Your task to perform on an android device: turn on showing notifications on the lock screen Image 0: 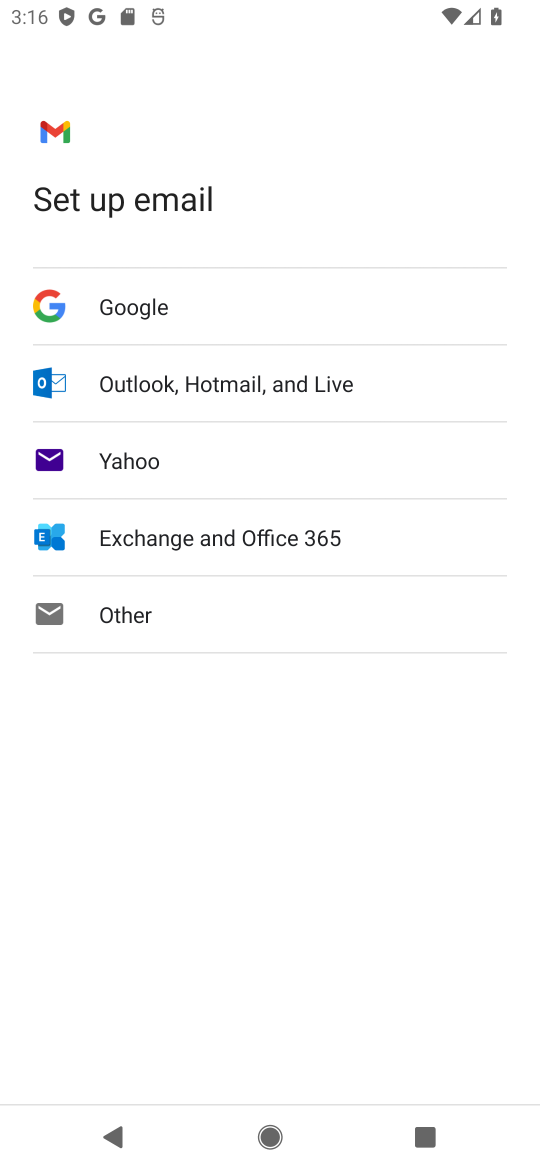
Step 0: press home button
Your task to perform on an android device: turn on showing notifications on the lock screen Image 1: 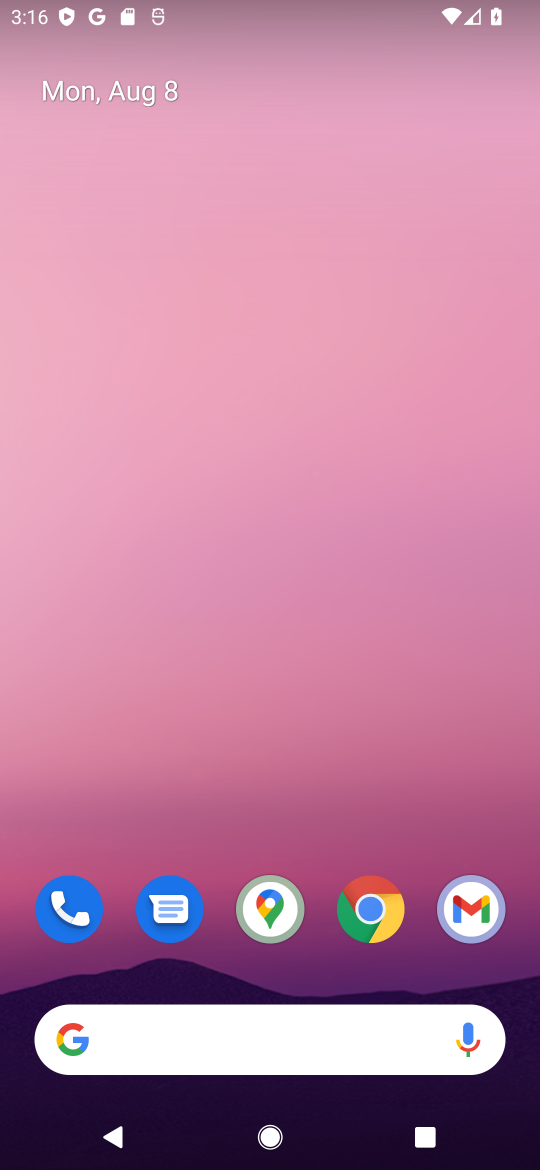
Step 1: drag from (265, 1017) to (205, 425)
Your task to perform on an android device: turn on showing notifications on the lock screen Image 2: 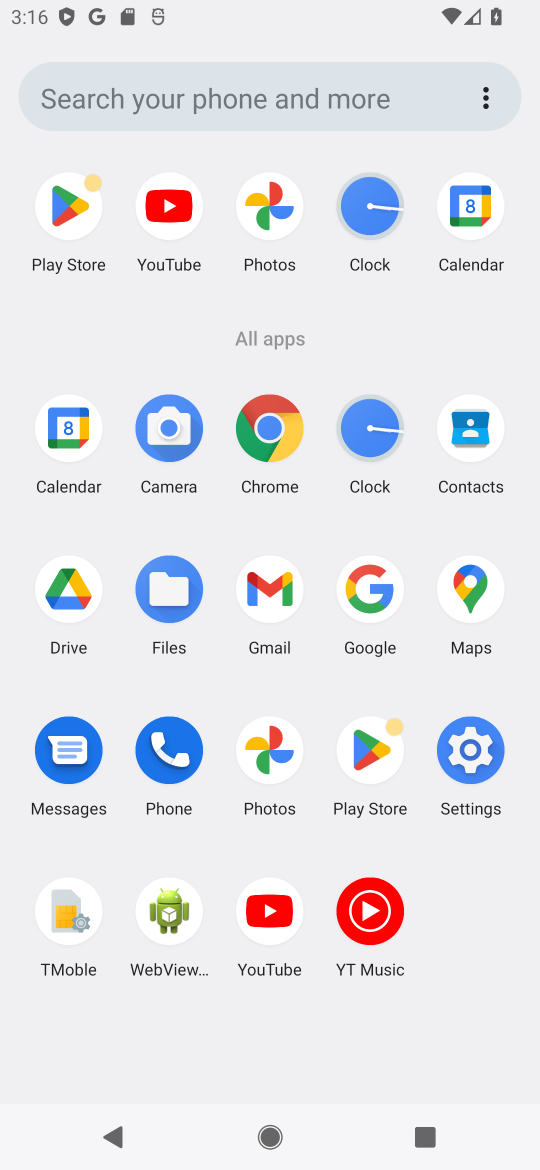
Step 2: click (441, 735)
Your task to perform on an android device: turn on showing notifications on the lock screen Image 3: 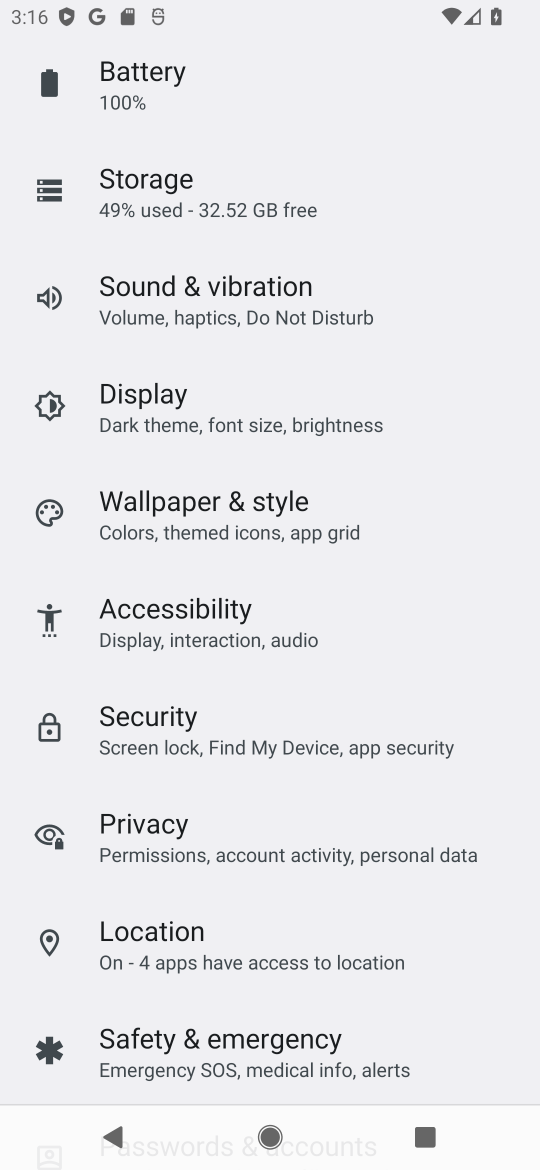
Step 3: click (174, 850)
Your task to perform on an android device: turn on showing notifications on the lock screen Image 4: 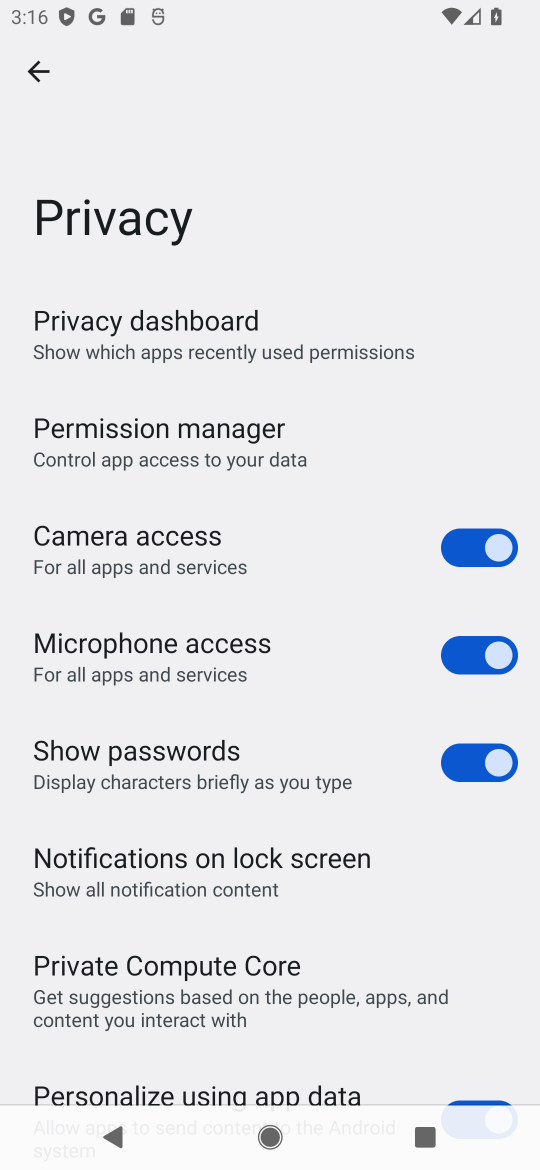
Step 4: click (99, 850)
Your task to perform on an android device: turn on showing notifications on the lock screen Image 5: 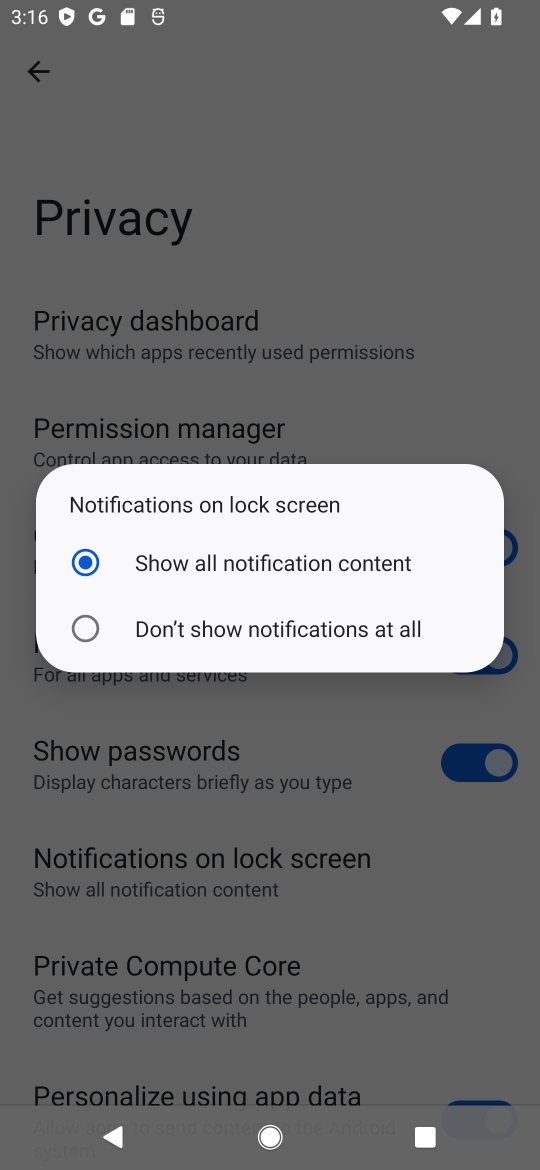
Step 5: task complete